Your task to perform on an android device: Show me the alarms in the clock app Image 0: 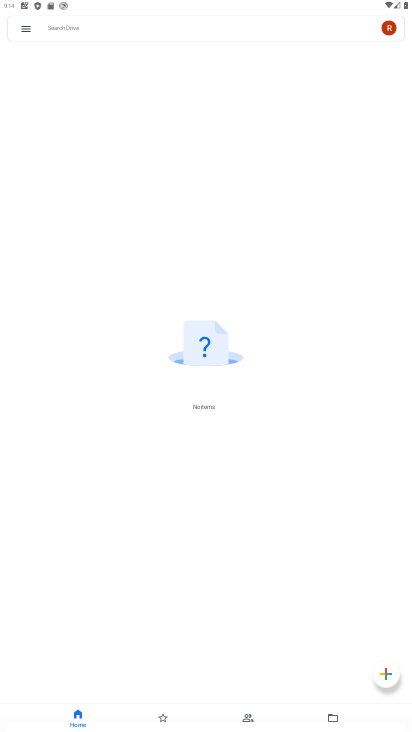
Step 0: press home button
Your task to perform on an android device: Show me the alarms in the clock app Image 1: 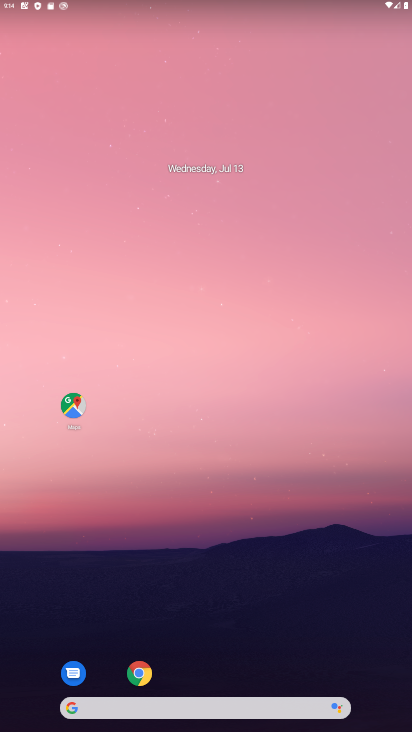
Step 1: drag from (224, 664) to (256, 312)
Your task to perform on an android device: Show me the alarms in the clock app Image 2: 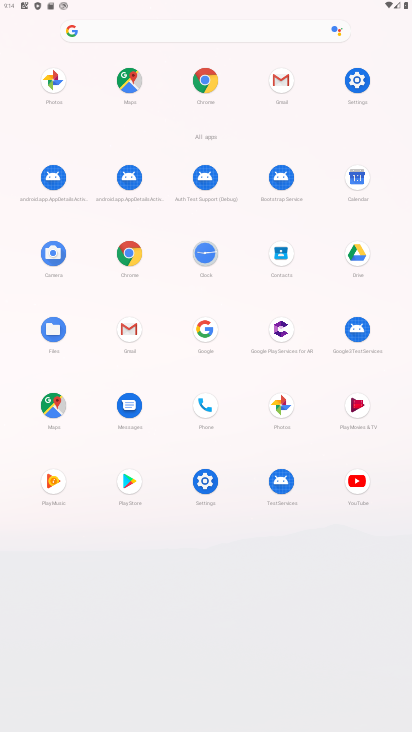
Step 2: click (209, 260)
Your task to perform on an android device: Show me the alarms in the clock app Image 3: 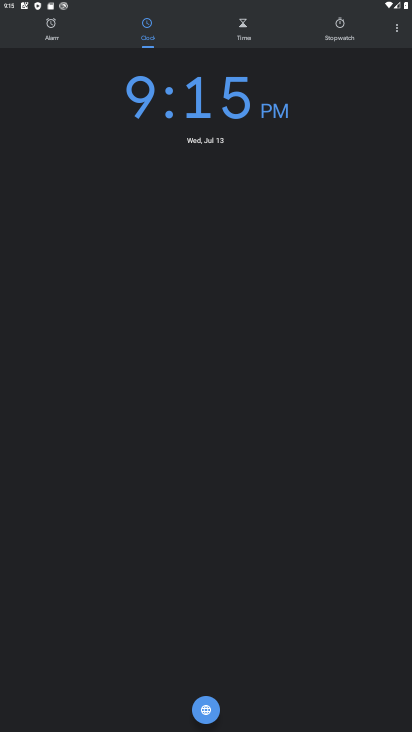
Step 3: click (54, 32)
Your task to perform on an android device: Show me the alarms in the clock app Image 4: 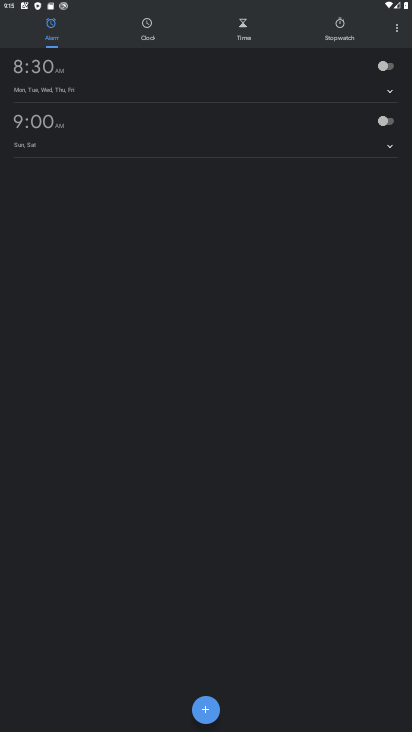
Step 4: task complete